Your task to perform on an android device: Search for vegetarian restaurants on Maps Image 0: 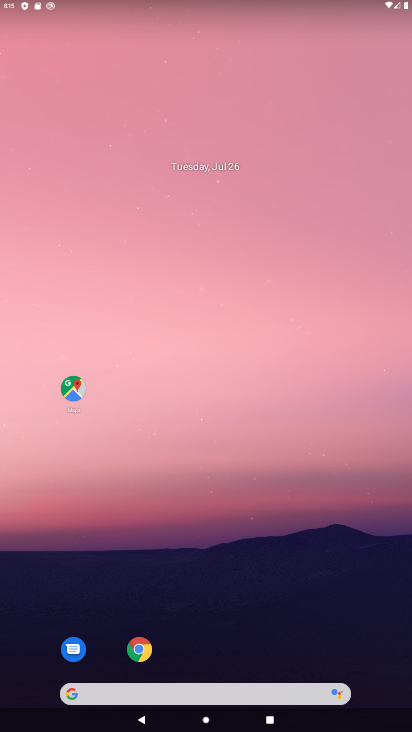
Step 0: click (64, 399)
Your task to perform on an android device: Search for vegetarian restaurants on Maps Image 1: 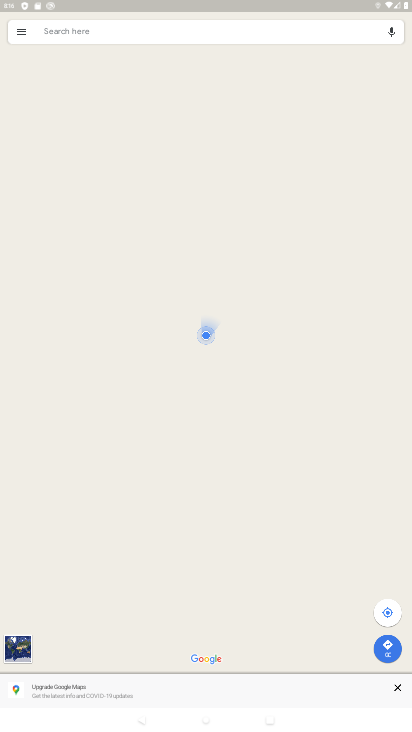
Step 1: click (217, 31)
Your task to perform on an android device: Search for vegetarian restaurants on Maps Image 2: 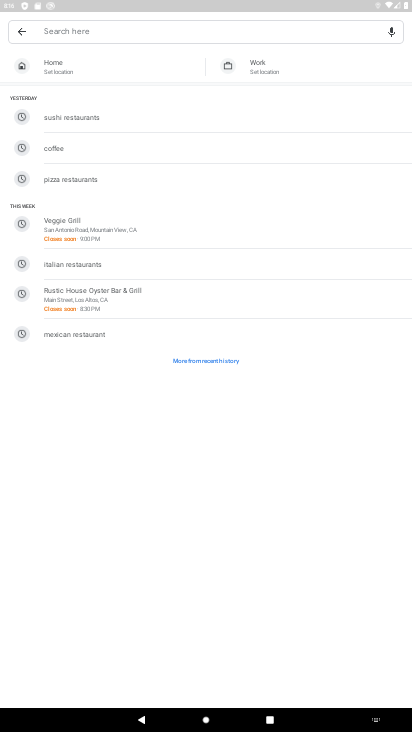
Step 2: type "vegetarian restaurant"
Your task to perform on an android device: Search for vegetarian restaurants on Maps Image 3: 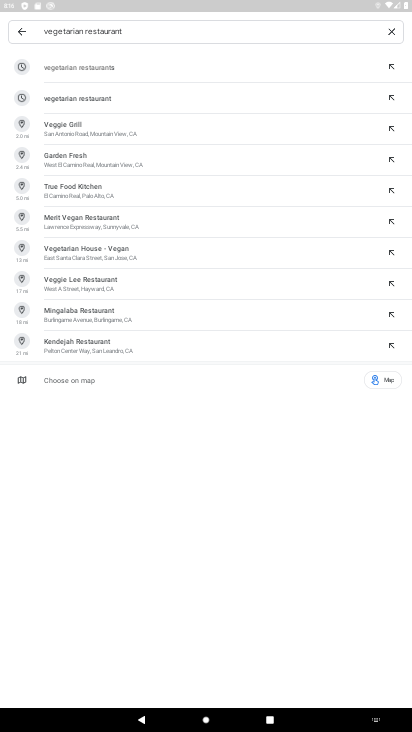
Step 3: click (142, 78)
Your task to perform on an android device: Search for vegetarian restaurants on Maps Image 4: 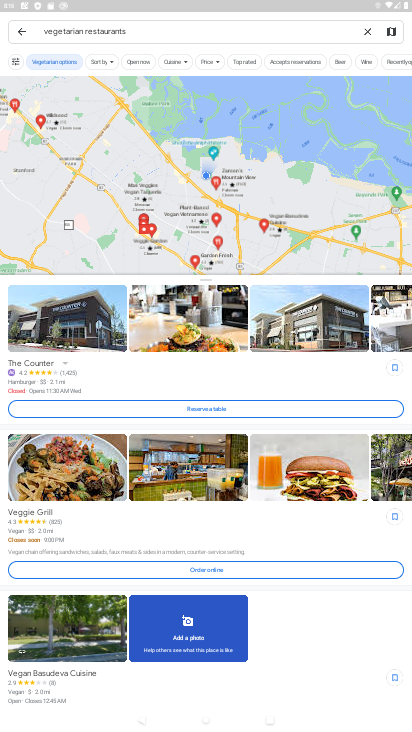
Step 4: task complete